Your task to perform on an android device: Do I have any events this weekend? Image 0: 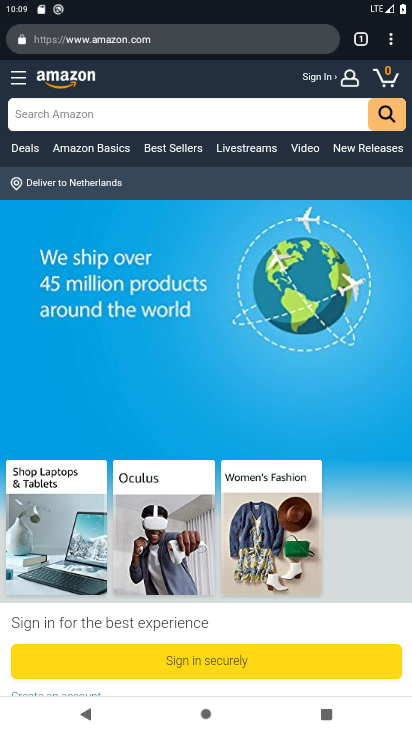
Step 0: press home button
Your task to perform on an android device: Do I have any events this weekend? Image 1: 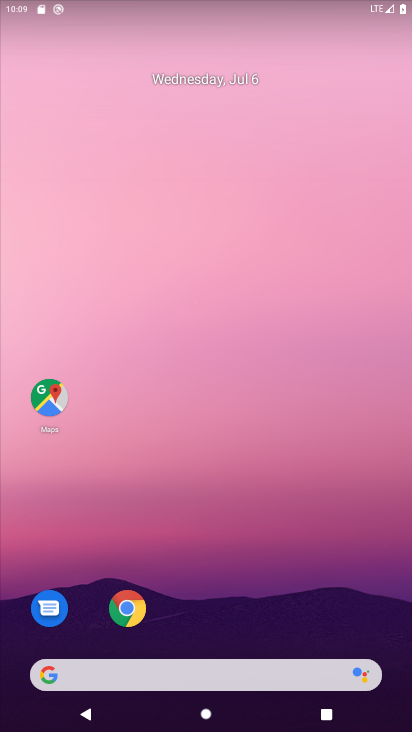
Step 1: drag from (215, 605) to (298, 79)
Your task to perform on an android device: Do I have any events this weekend? Image 2: 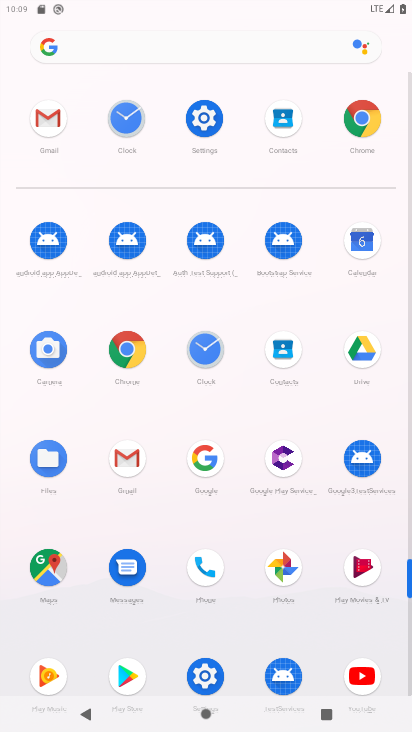
Step 2: click (376, 258)
Your task to perform on an android device: Do I have any events this weekend? Image 3: 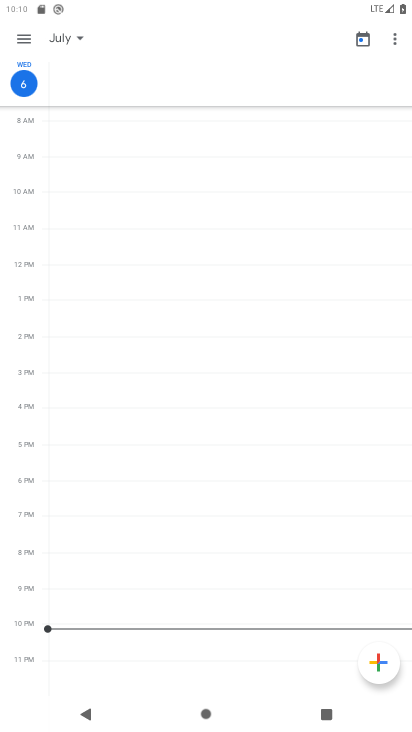
Step 3: click (30, 33)
Your task to perform on an android device: Do I have any events this weekend? Image 4: 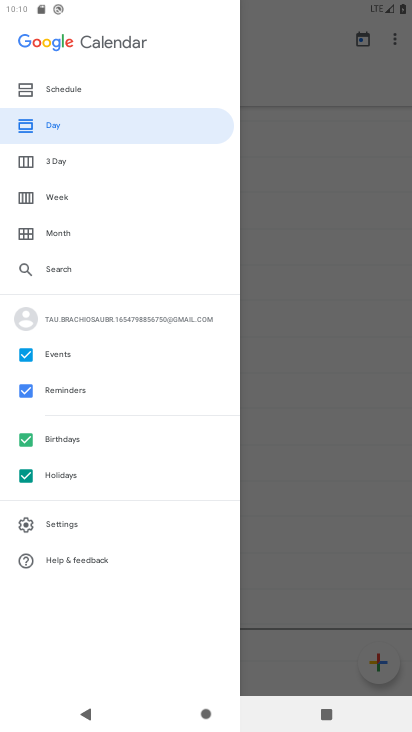
Step 4: click (65, 471)
Your task to perform on an android device: Do I have any events this weekend? Image 5: 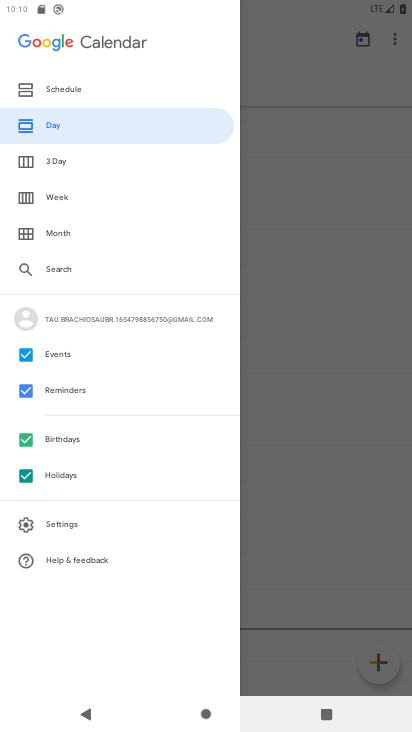
Step 5: click (65, 438)
Your task to perform on an android device: Do I have any events this weekend? Image 6: 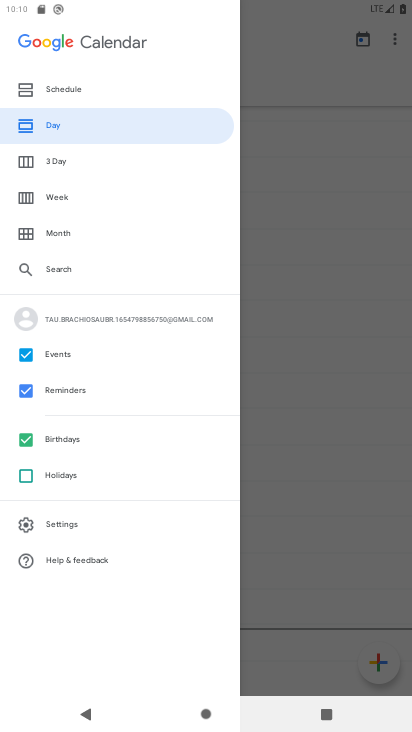
Step 6: click (64, 387)
Your task to perform on an android device: Do I have any events this weekend? Image 7: 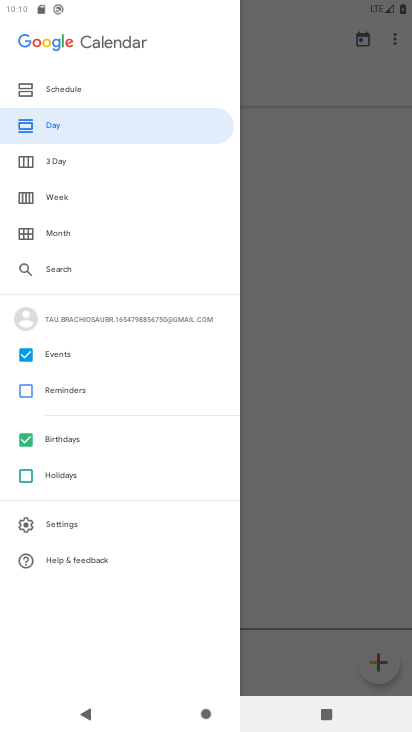
Step 7: click (48, 439)
Your task to perform on an android device: Do I have any events this weekend? Image 8: 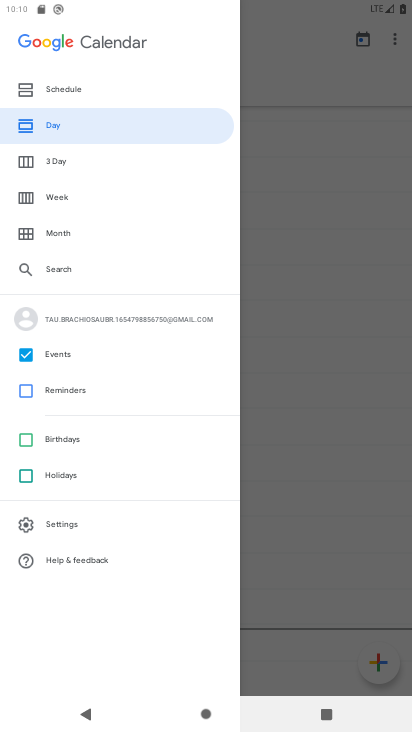
Step 8: click (63, 196)
Your task to perform on an android device: Do I have any events this weekend? Image 9: 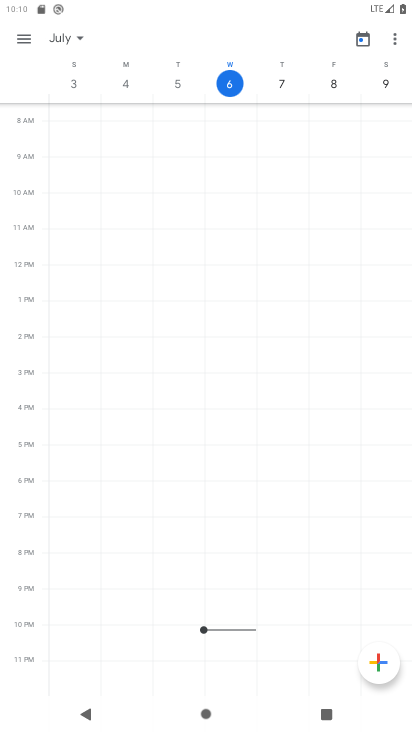
Step 9: task complete